Your task to perform on an android device: When is my next meeting? Image 0: 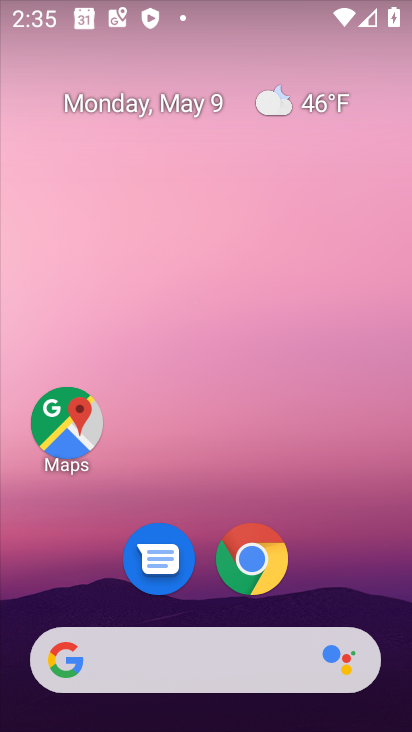
Step 0: drag from (323, 592) to (270, 181)
Your task to perform on an android device: When is my next meeting? Image 1: 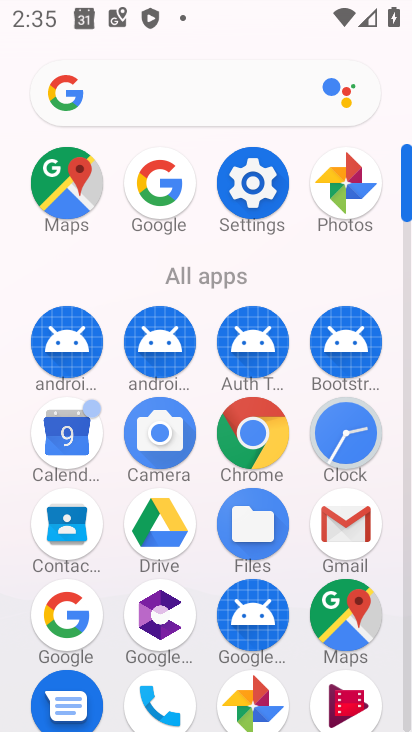
Step 1: click (72, 459)
Your task to perform on an android device: When is my next meeting? Image 2: 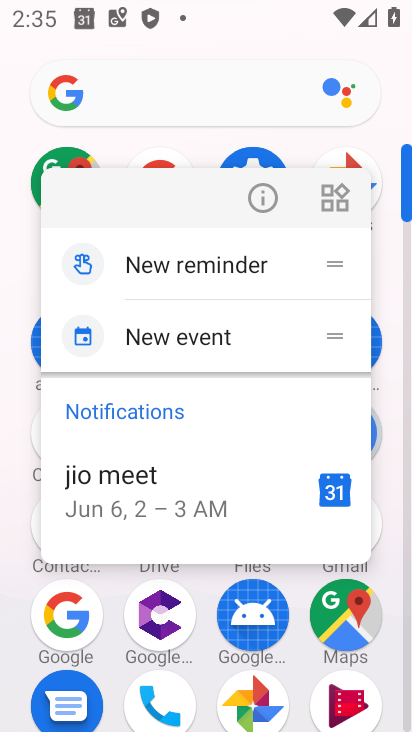
Step 2: click (29, 435)
Your task to perform on an android device: When is my next meeting? Image 3: 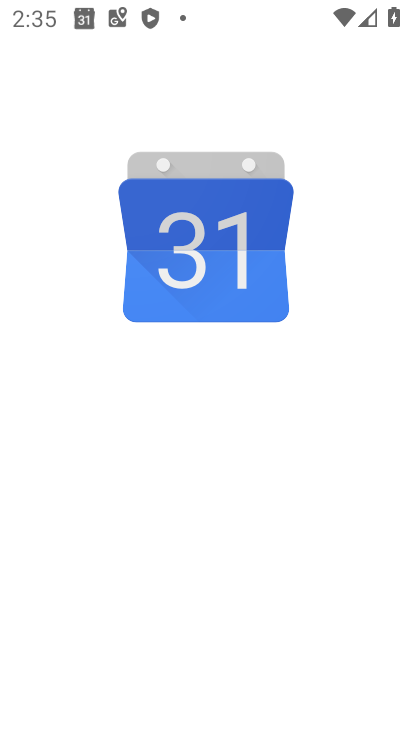
Step 3: click (75, 415)
Your task to perform on an android device: When is my next meeting? Image 4: 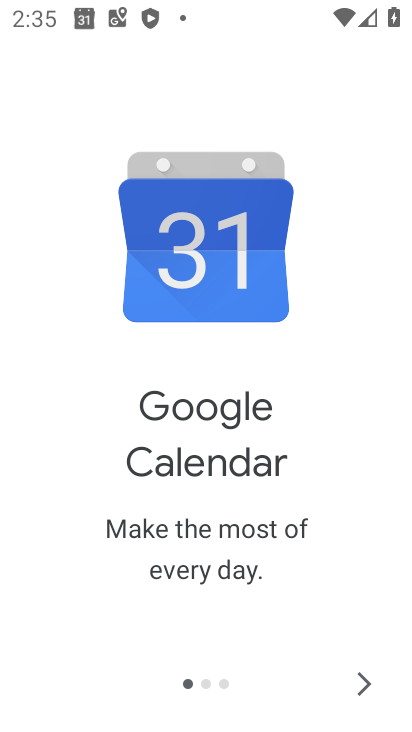
Step 4: click (366, 662)
Your task to perform on an android device: When is my next meeting? Image 5: 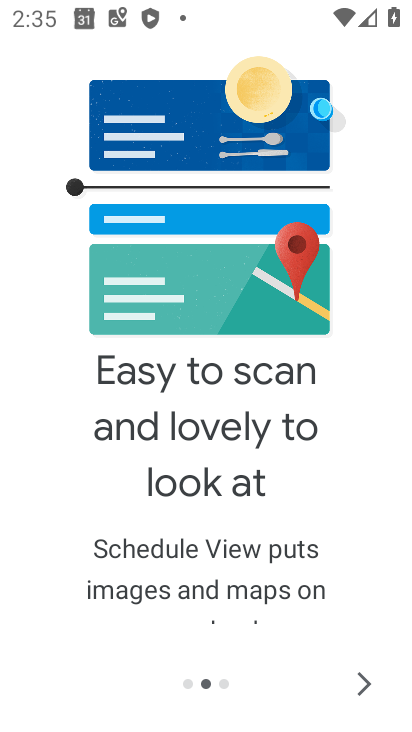
Step 5: click (366, 662)
Your task to perform on an android device: When is my next meeting? Image 6: 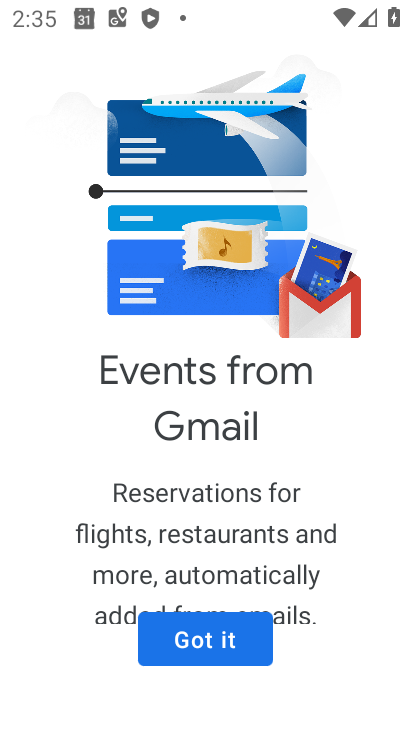
Step 6: click (366, 662)
Your task to perform on an android device: When is my next meeting? Image 7: 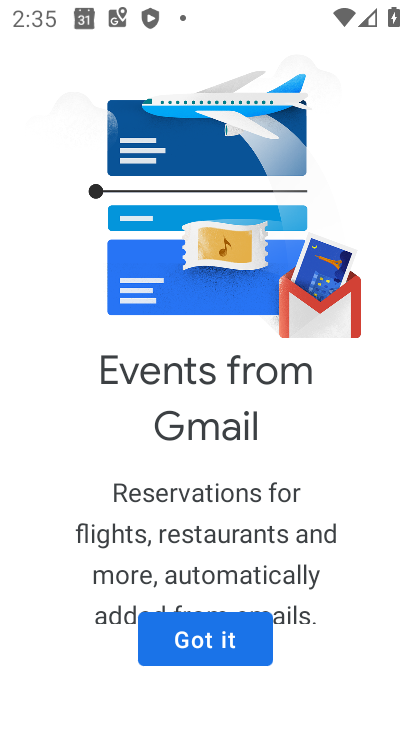
Step 7: click (227, 653)
Your task to perform on an android device: When is my next meeting? Image 8: 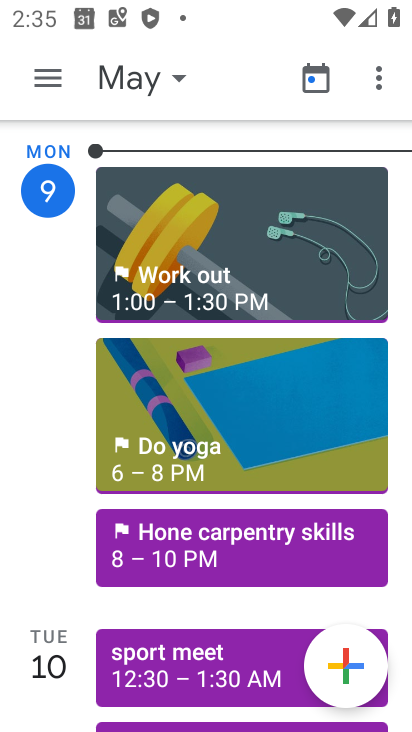
Step 8: click (52, 646)
Your task to perform on an android device: When is my next meeting? Image 9: 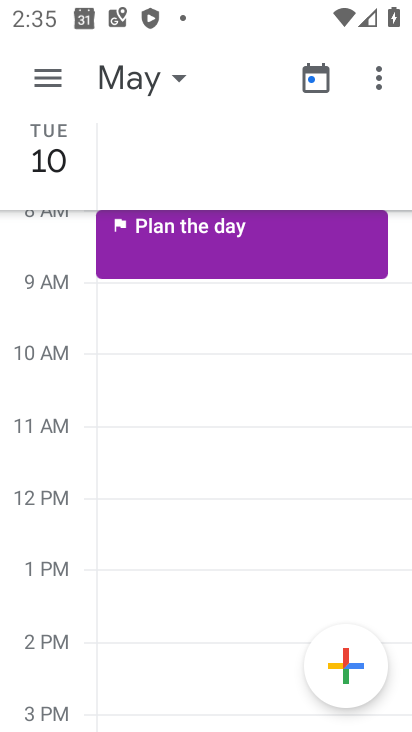
Step 9: task complete